Your task to perform on an android device: Open network settings Image 0: 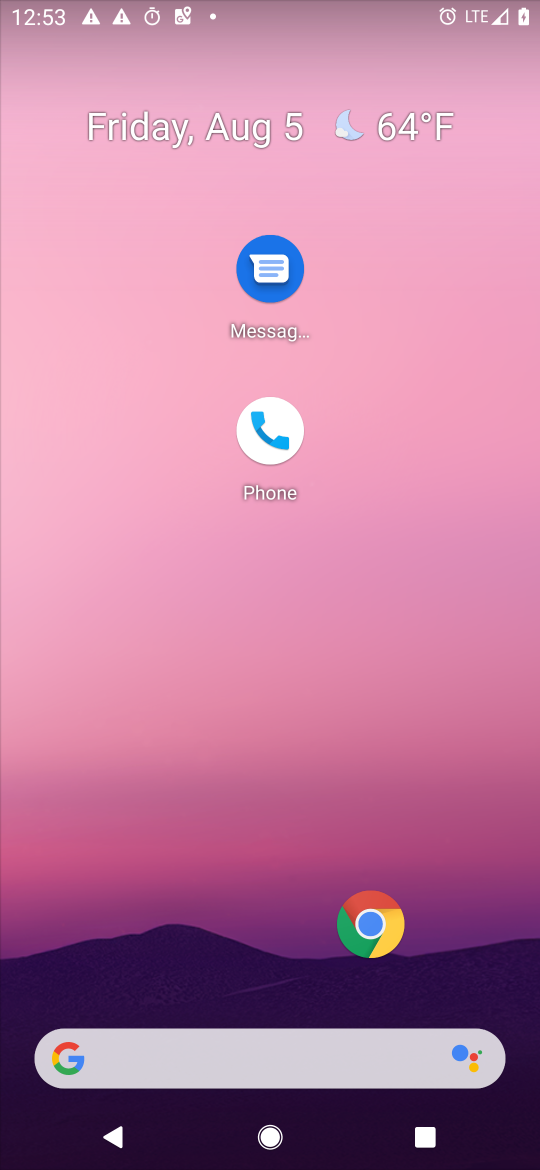
Step 0: drag from (260, 934) to (217, 163)
Your task to perform on an android device: Open network settings Image 1: 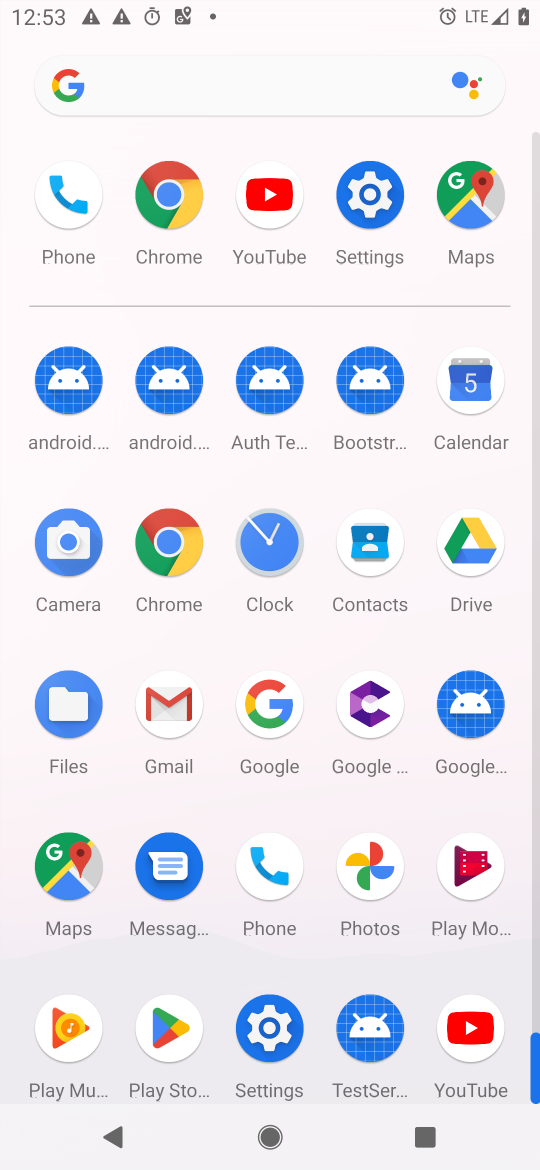
Step 1: click (266, 1006)
Your task to perform on an android device: Open network settings Image 2: 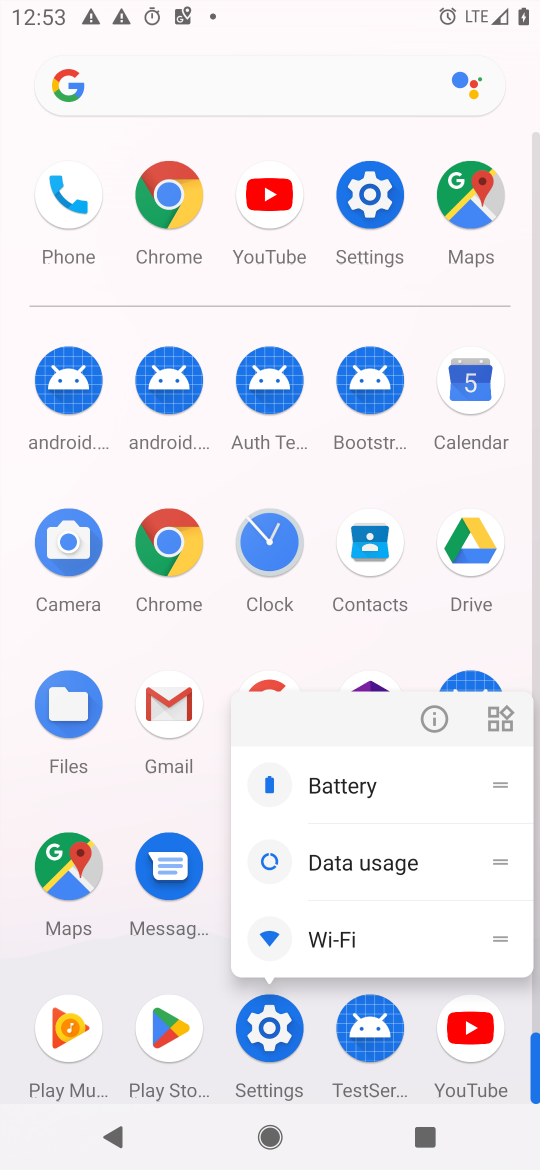
Step 2: click (426, 719)
Your task to perform on an android device: Open network settings Image 3: 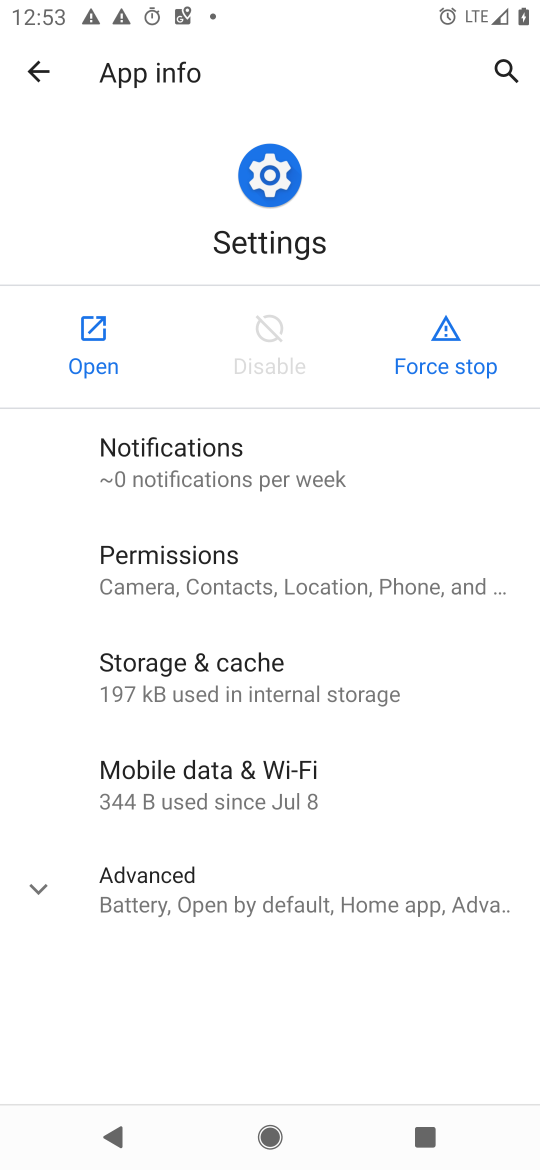
Step 3: click (104, 373)
Your task to perform on an android device: Open network settings Image 4: 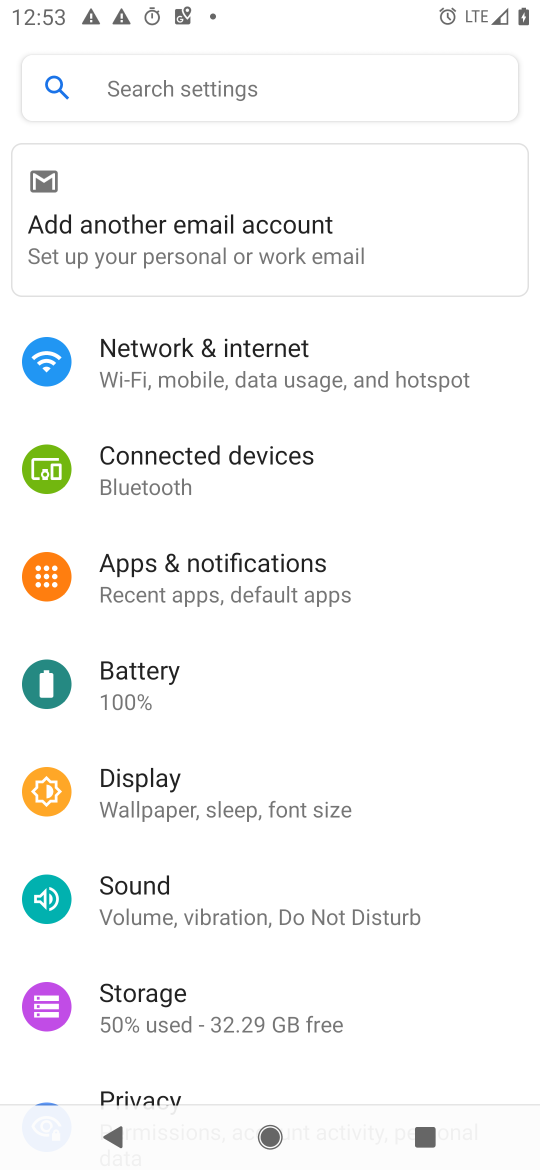
Step 4: click (231, 370)
Your task to perform on an android device: Open network settings Image 5: 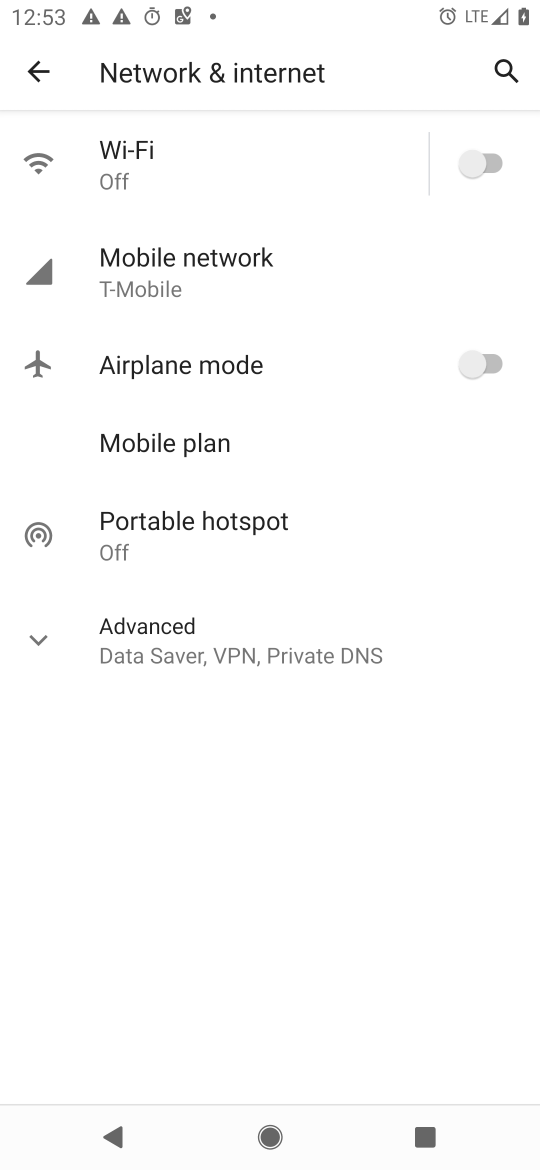
Step 5: task complete